Your task to perform on an android device: set the stopwatch Image 0: 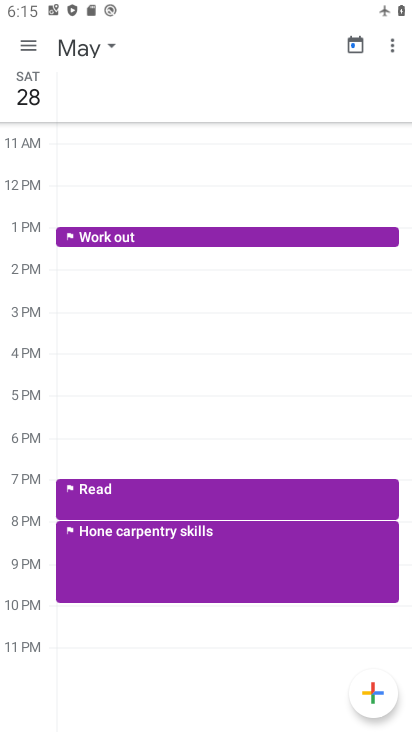
Step 0: press back button
Your task to perform on an android device: set the stopwatch Image 1: 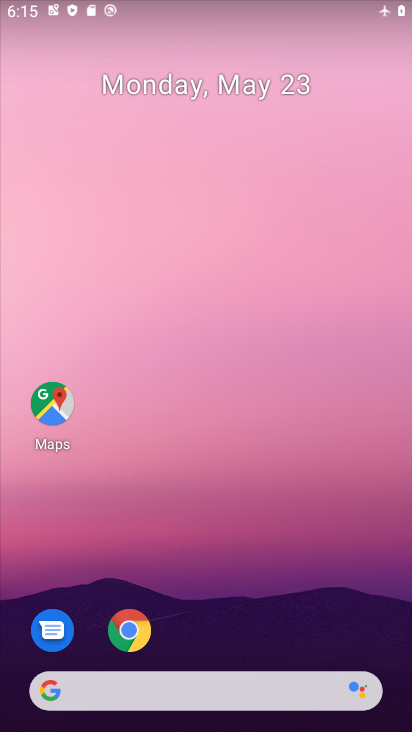
Step 1: drag from (293, 120) to (293, 13)
Your task to perform on an android device: set the stopwatch Image 2: 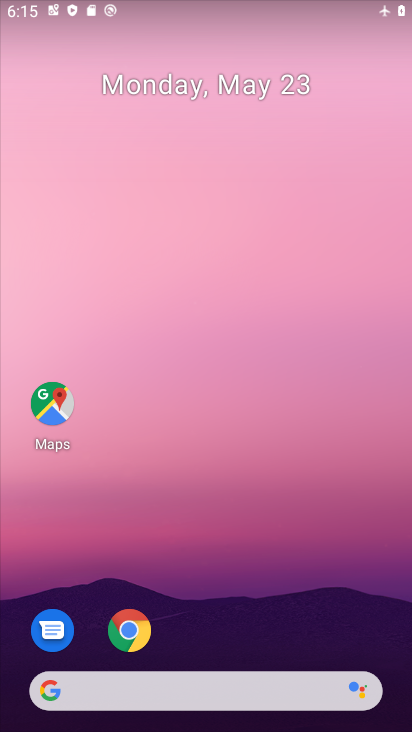
Step 2: drag from (288, 526) to (280, 4)
Your task to perform on an android device: set the stopwatch Image 3: 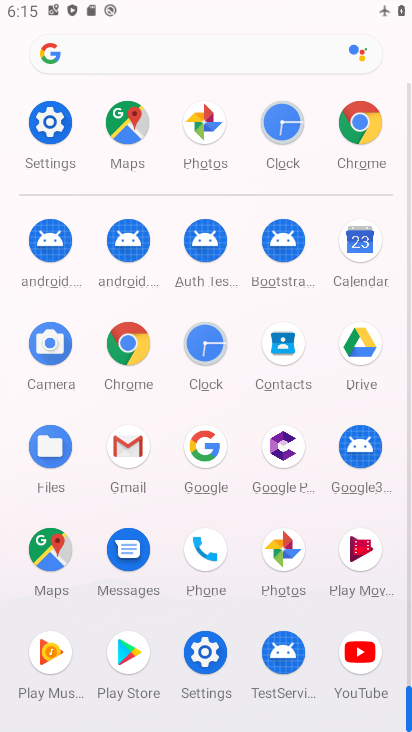
Step 3: drag from (5, 545) to (18, 171)
Your task to perform on an android device: set the stopwatch Image 4: 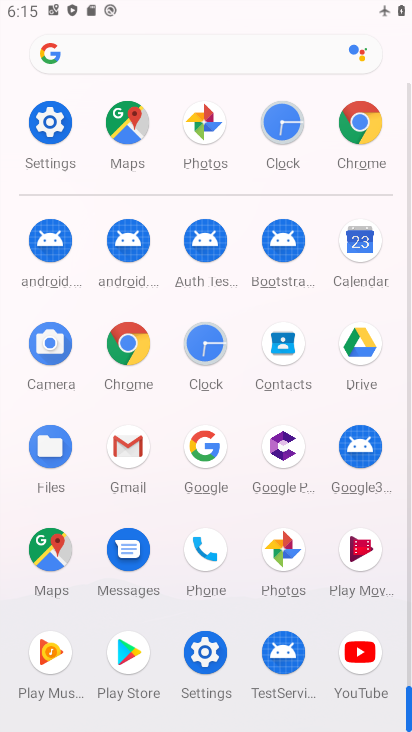
Step 4: click (205, 339)
Your task to perform on an android device: set the stopwatch Image 5: 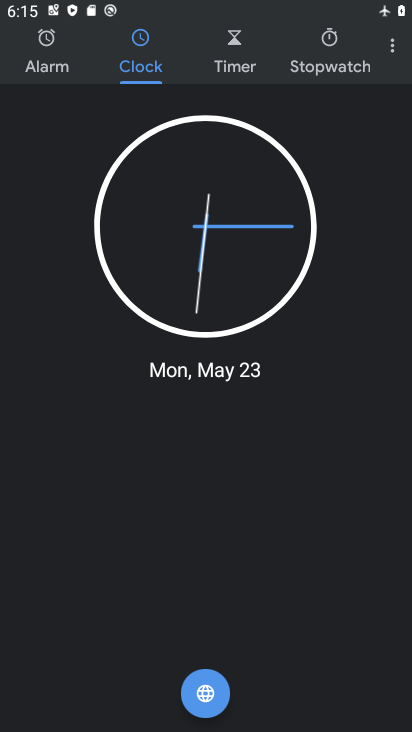
Step 5: click (320, 38)
Your task to perform on an android device: set the stopwatch Image 6: 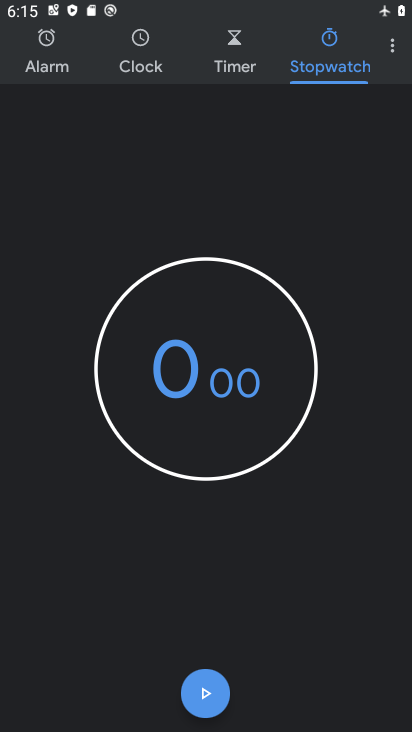
Step 6: click (208, 683)
Your task to perform on an android device: set the stopwatch Image 7: 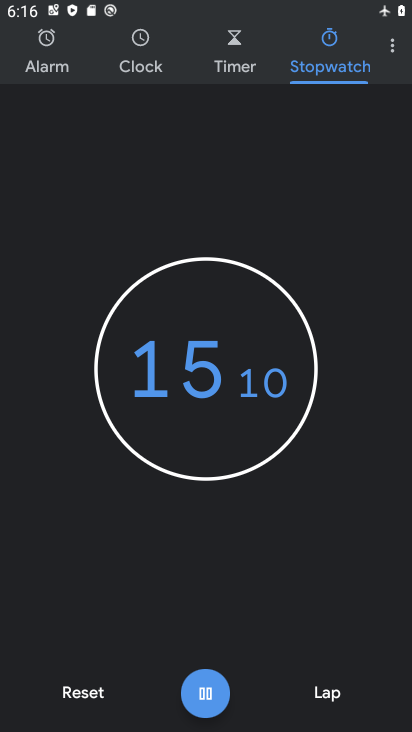
Step 7: task complete